Your task to perform on an android device: toggle translation in the chrome app Image 0: 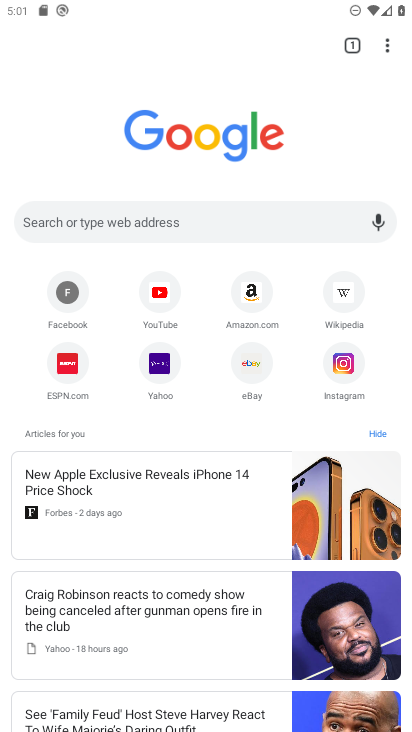
Step 0: press home button
Your task to perform on an android device: toggle translation in the chrome app Image 1: 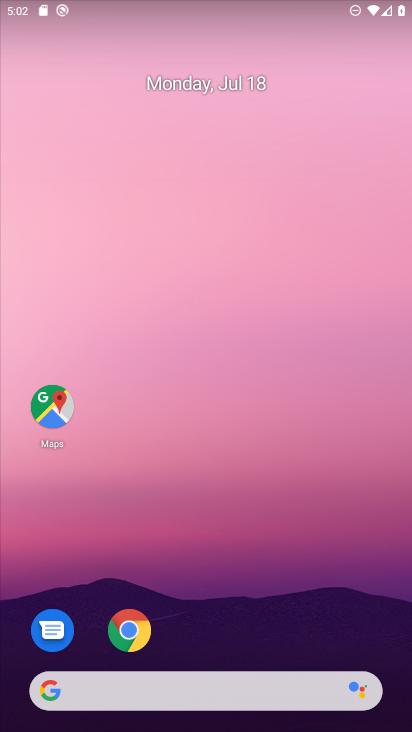
Step 1: click (126, 630)
Your task to perform on an android device: toggle translation in the chrome app Image 2: 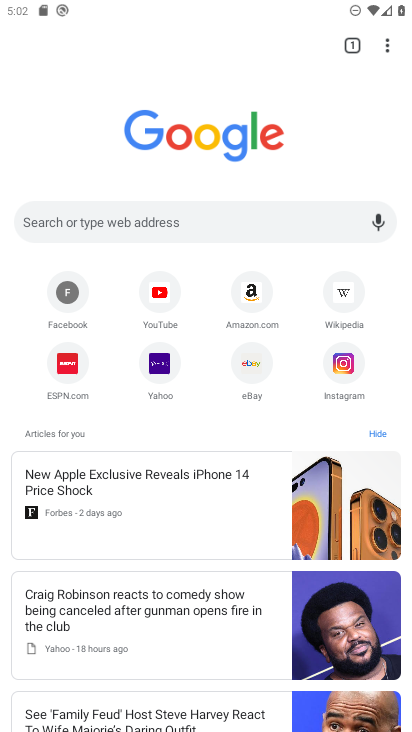
Step 2: click (387, 43)
Your task to perform on an android device: toggle translation in the chrome app Image 3: 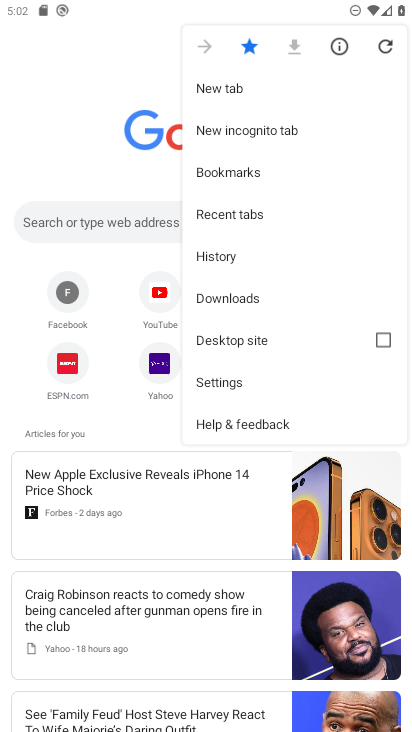
Step 3: click (239, 378)
Your task to perform on an android device: toggle translation in the chrome app Image 4: 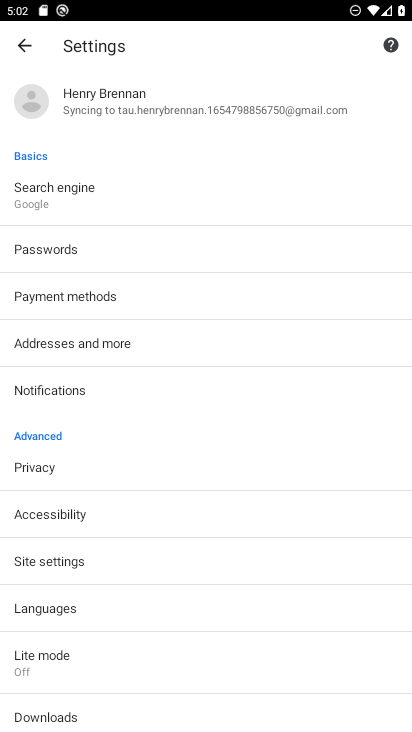
Step 4: click (80, 610)
Your task to perform on an android device: toggle translation in the chrome app Image 5: 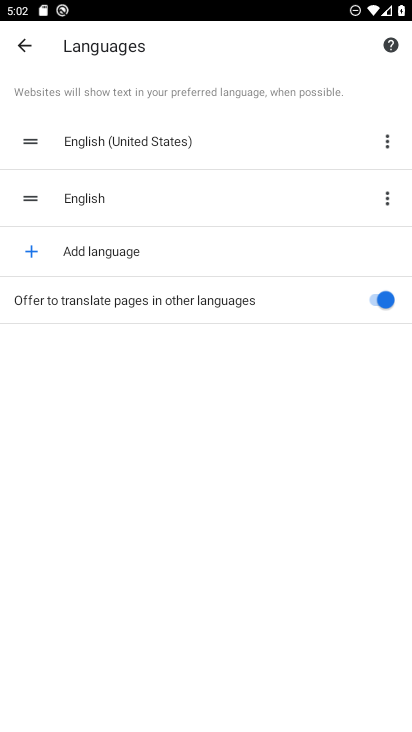
Step 5: click (380, 298)
Your task to perform on an android device: toggle translation in the chrome app Image 6: 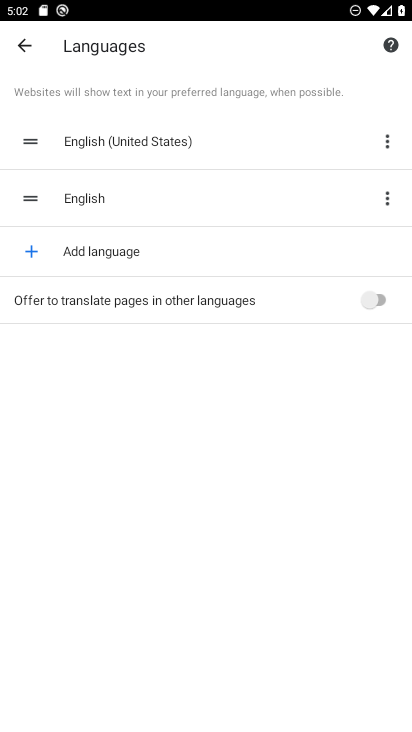
Step 6: task complete